Your task to perform on an android device: Open Maps and search for coffee Image 0: 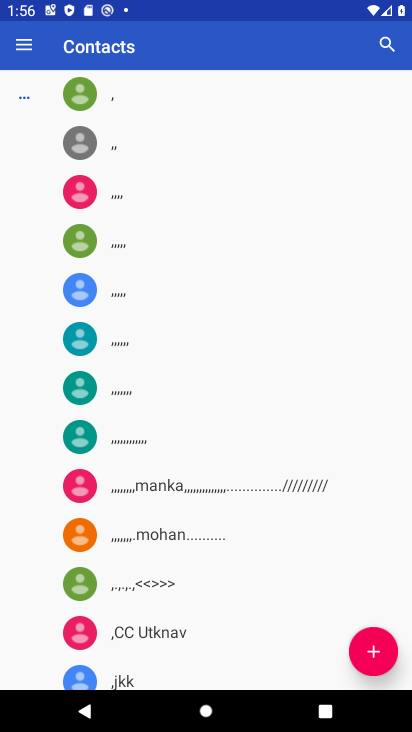
Step 0: press back button
Your task to perform on an android device: Open Maps and search for coffee Image 1: 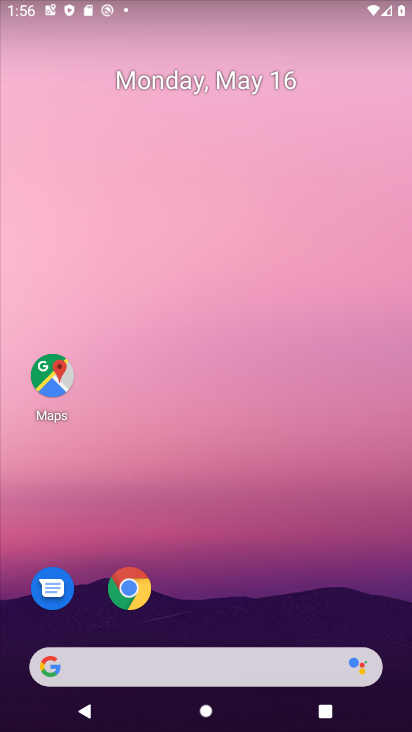
Step 1: click (51, 377)
Your task to perform on an android device: Open Maps and search for coffee Image 2: 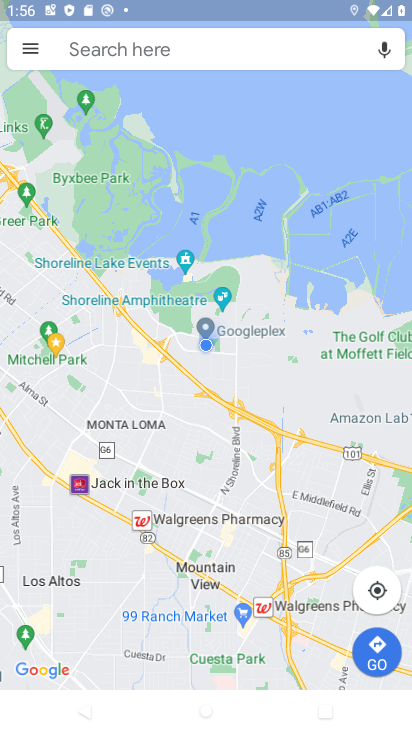
Step 2: click (149, 48)
Your task to perform on an android device: Open Maps and search for coffee Image 3: 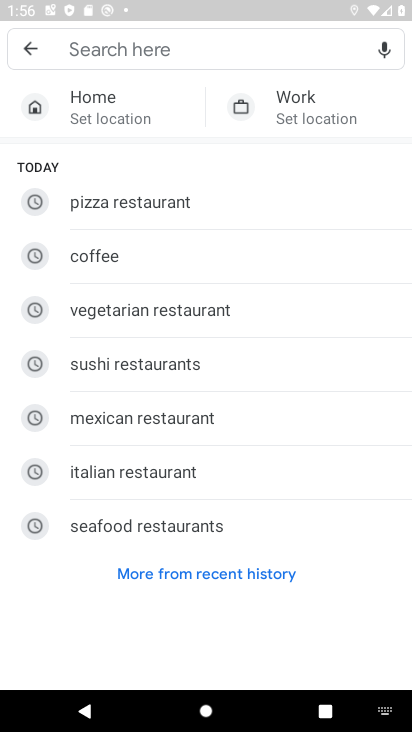
Step 3: type "coffee"
Your task to perform on an android device: Open Maps and search for coffee Image 4: 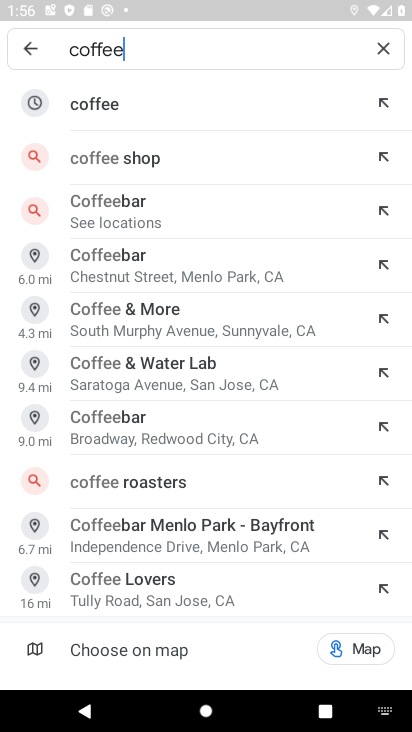
Step 4: click (93, 109)
Your task to perform on an android device: Open Maps and search for coffee Image 5: 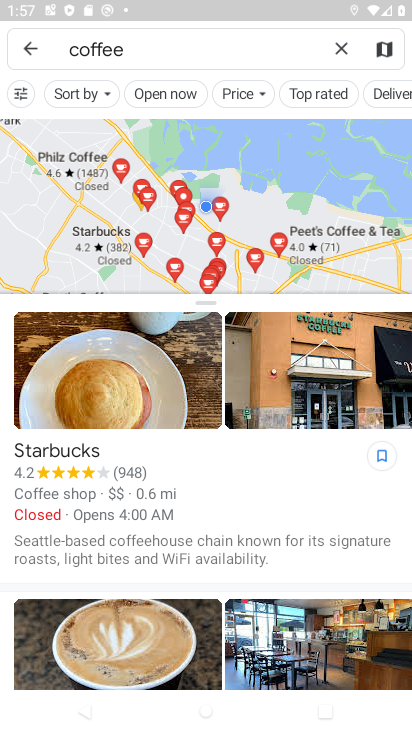
Step 5: task complete